Your task to perform on an android device: open the mobile data screen to see how much data has been used Image 0: 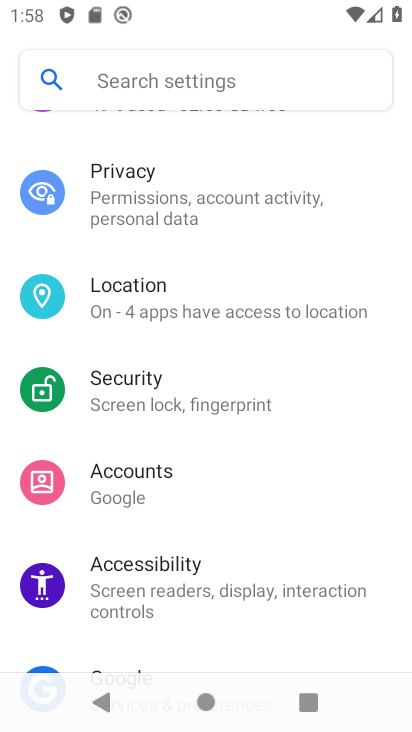
Step 0: task complete